Your task to perform on an android device: Search for Mexican restaurants on Maps Image 0: 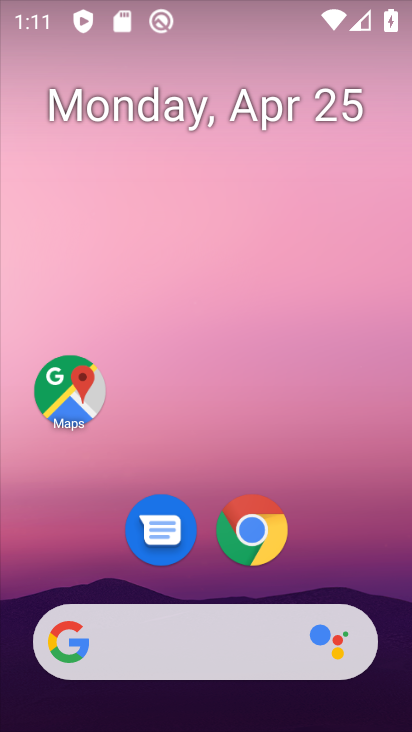
Step 0: drag from (365, 549) to (389, 99)
Your task to perform on an android device: Search for Mexican restaurants on Maps Image 1: 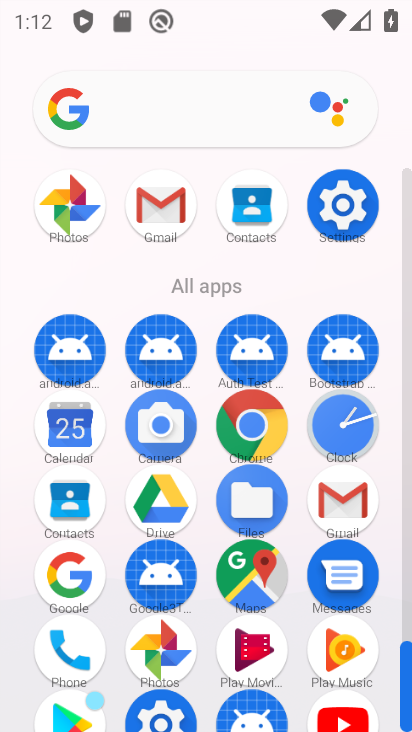
Step 1: click (245, 575)
Your task to perform on an android device: Search for Mexican restaurants on Maps Image 2: 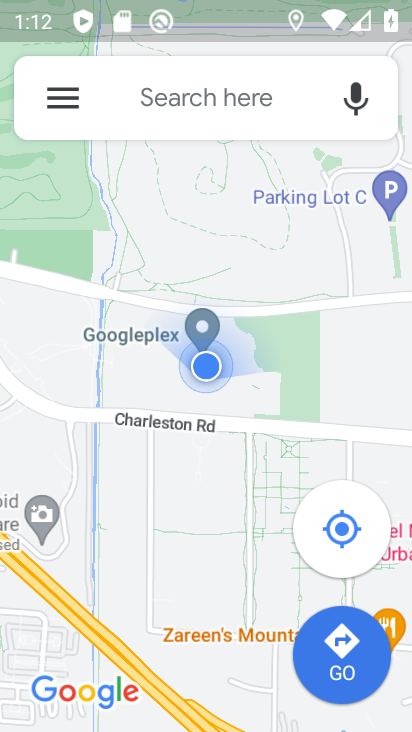
Step 2: click (150, 106)
Your task to perform on an android device: Search for Mexican restaurants on Maps Image 3: 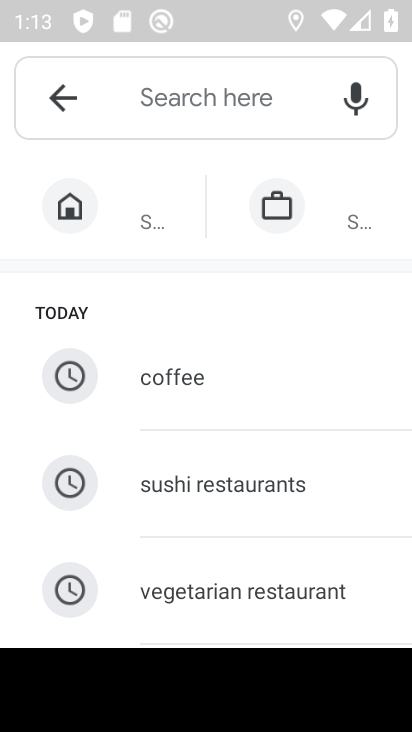
Step 3: type "mexican restaurants"
Your task to perform on an android device: Search for Mexican restaurants on Maps Image 4: 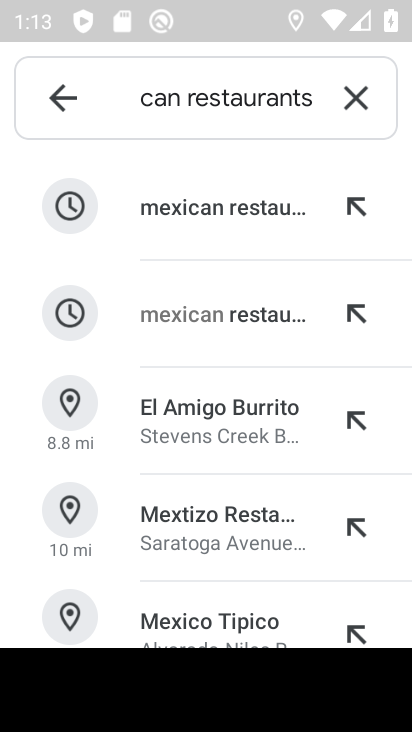
Step 4: click (217, 209)
Your task to perform on an android device: Search for Mexican restaurants on Maps Image 5: 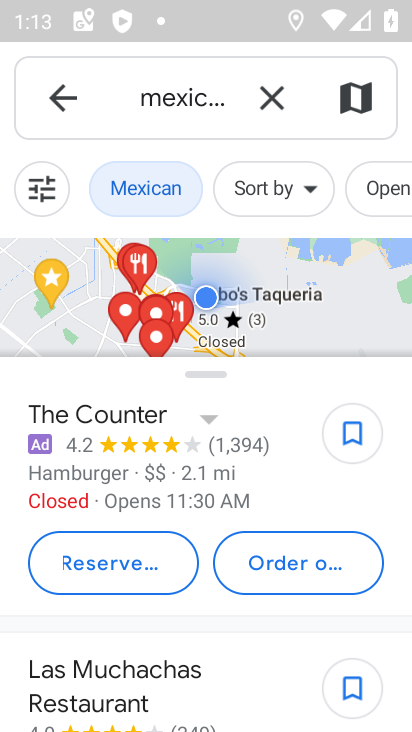
Step 5: task complete